Your task to perform on an android device: turn off priority inbox in the gmail app Image 0: 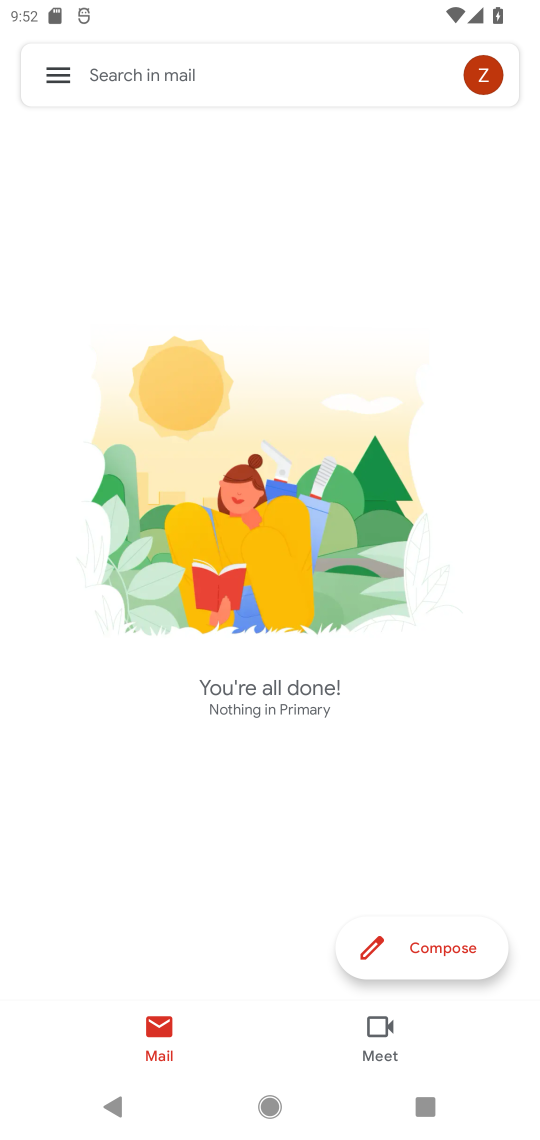
Step 0: click (66, 71)
Your task to perform on an android device: turn off priority inbox in the gmail app Image 1: 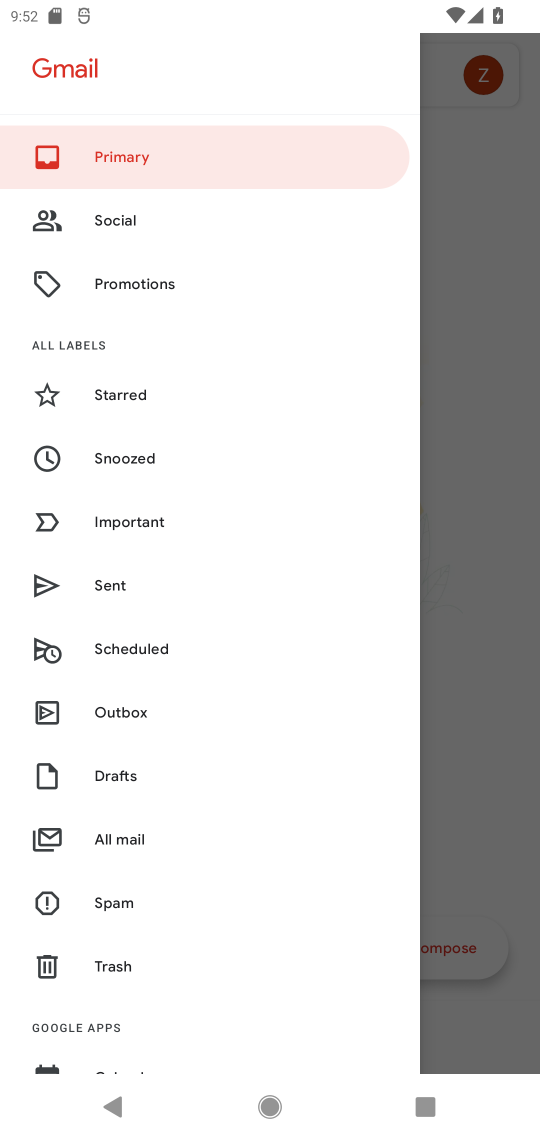
Step 1: drag from (105, 979) to (203, 206)
Your task to perform on an android device: turn off priority inbox in the gmail app Image 2: 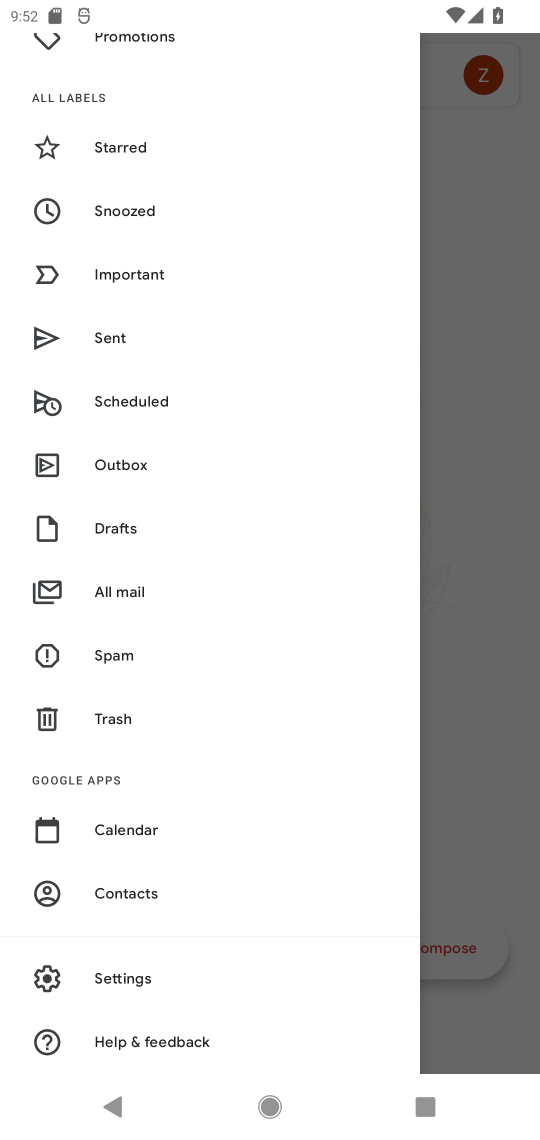
Step 2: click (144, 983)
Your task to perform on an android device: turn off priority inbox in the gmail app Image 3: 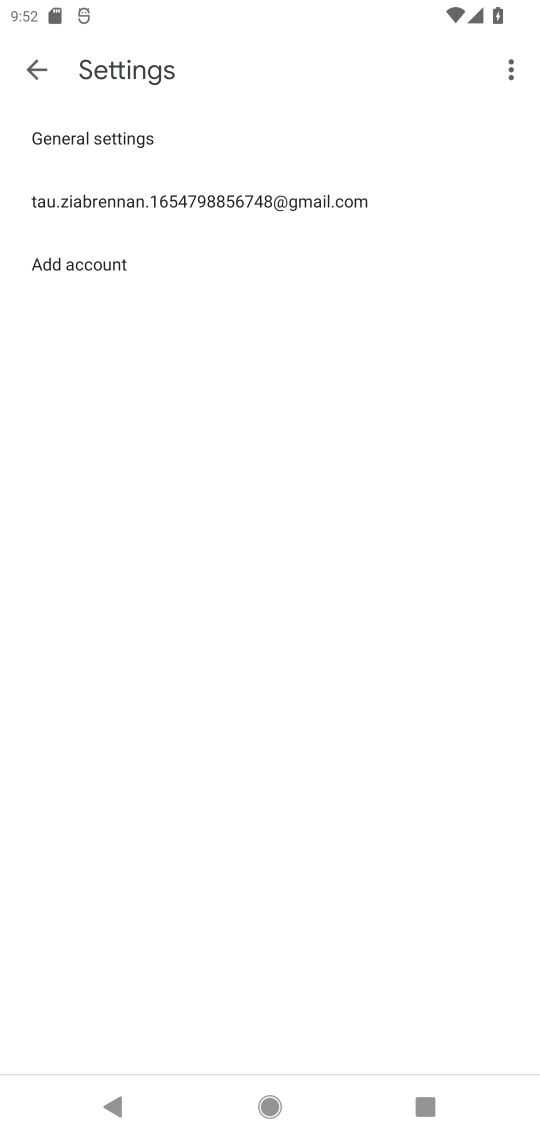
Step 3: click (361, 213)
Your task to perform on an android device: turn off priority inbox in the gmail app Image 4: 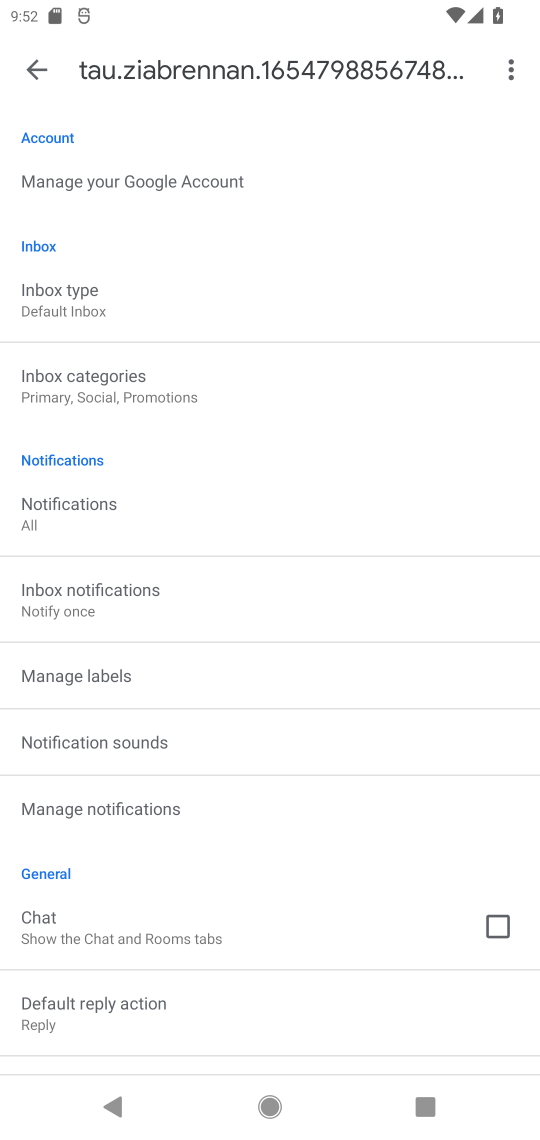
Step 4: click (127, 311)
Your task to perform on an android device: turn off priority inbox in the gmail app Image 5: 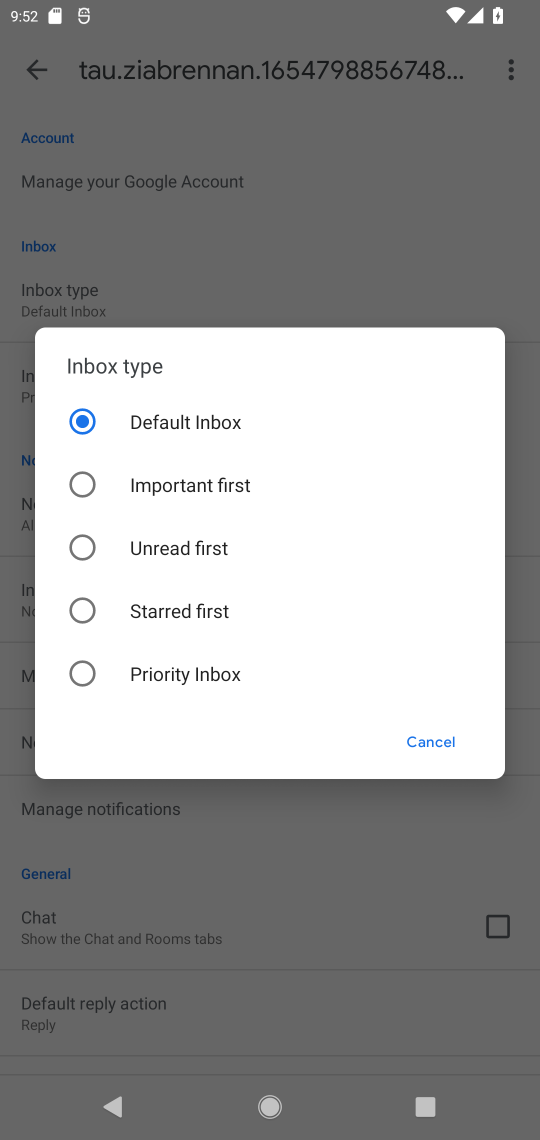
Step 5: task complete